Your task to perform on an android device: set the stopwatch Image 0: 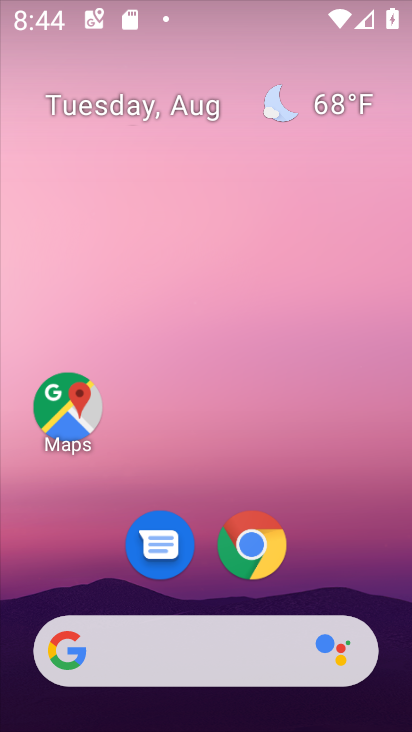
Step 0: drag from (193, 590) to (289, 2)
Your task to perform on an android device: set the stopwatch Image 1: 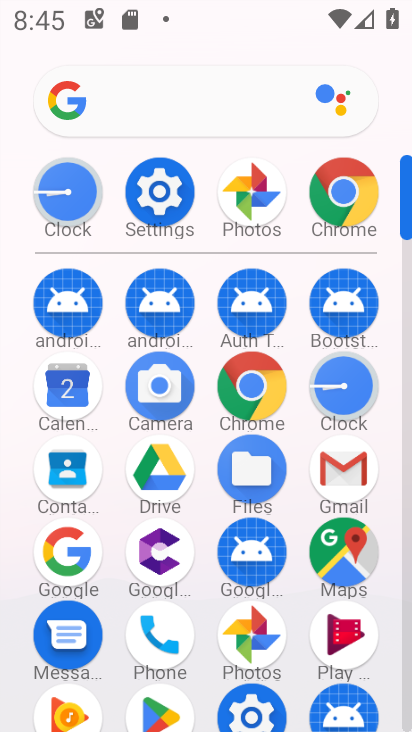
Step 1: click (347, 401)
Your task to perform on an android device: set the stopwatch Image 2: 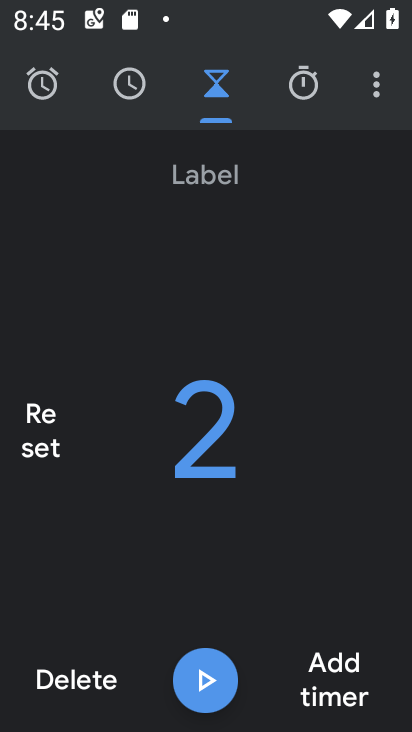
Step 2: click (306, 86)
Your task to perform on an android device: set the stopwatch Image 3: 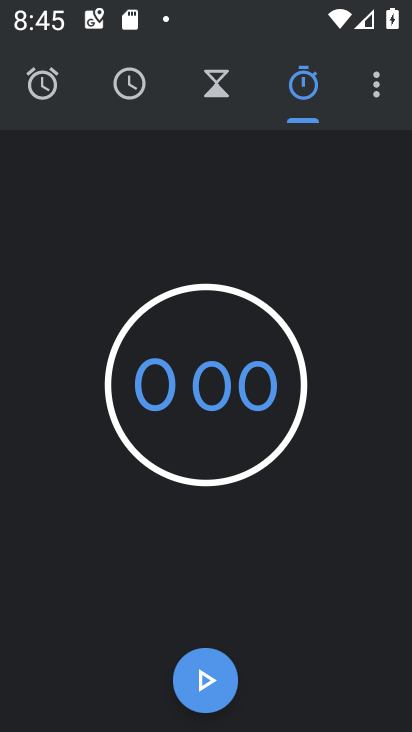
Step 3: click (199, 679)
Your task to perform on an android device: set the stopwatch Image 4: 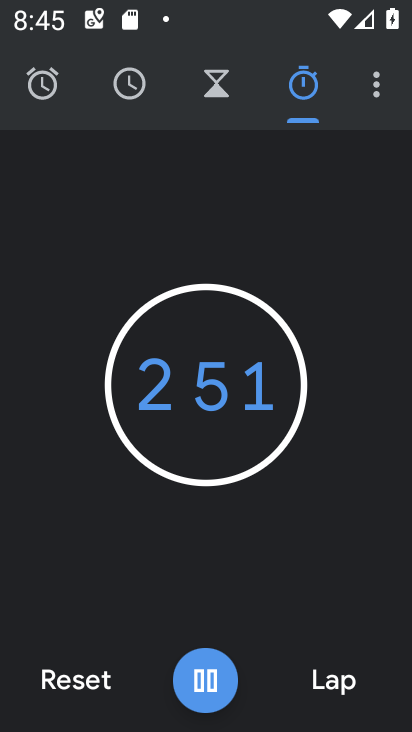
Step 4: task complete